Your task to perform on an android device: Search for razer blade on newegg.com, select the first entry, add it to the cart, then select checkout. Image 0: 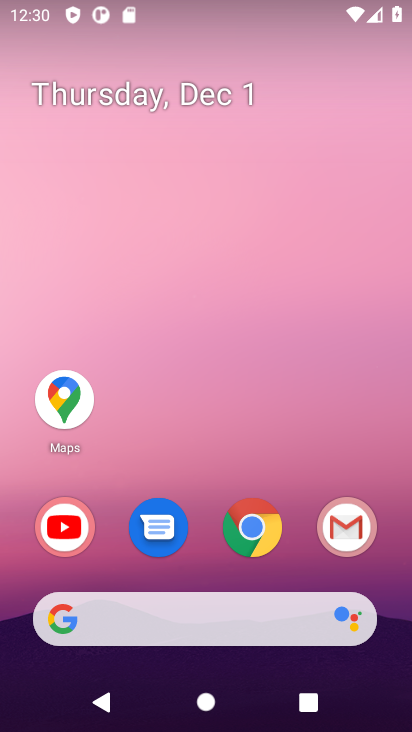
Step 0: click (263, 529)
Your task to perform on an android device: Search for razer blade on newegg.com, select the first entry, add it to the cart, then select checkout. Image 1: 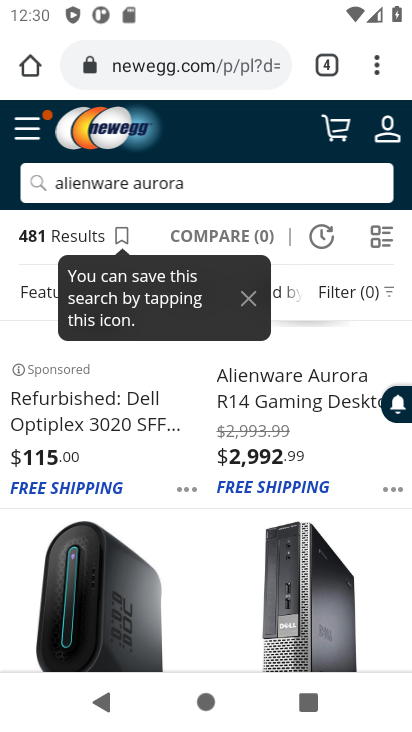
Step 1: click (213, 178)
Your task to perform on an android device: Search for razer blade on newegg.com, select the first entry, add it to the cart, then select checkout. Image 2: 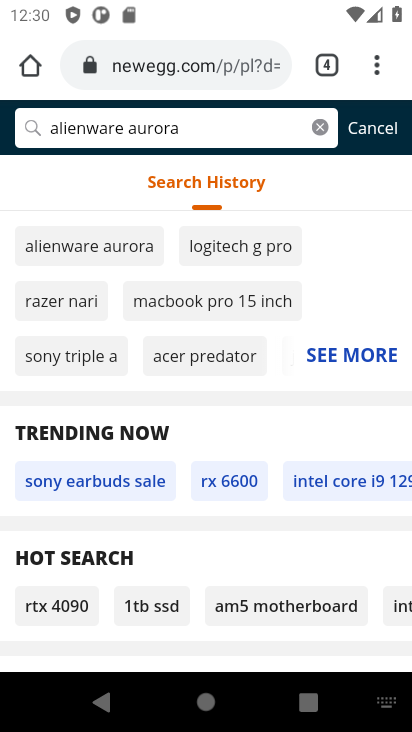
Step 2: click (372, 125)
Your task to perform on an android device: Search for razer blade on newegg.com, select the first entry, add it to the cart, then select checkout. Image 3: 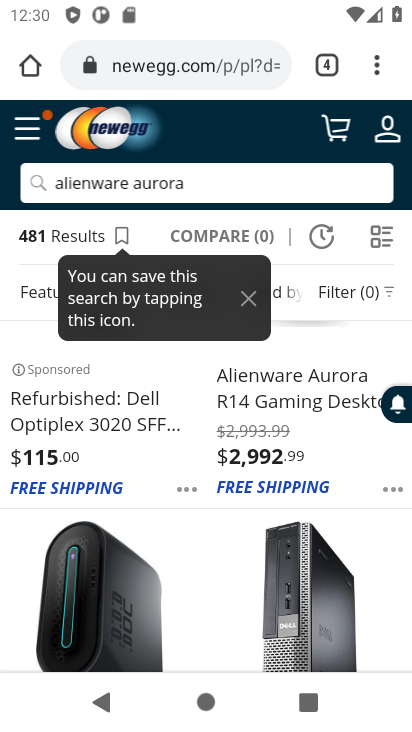
Step 3: click (198, 178)
Your task to perform on an android device: Search for razer blade on newegg.com, select the first entry, add it to the cart, then select checkout. Image 4: 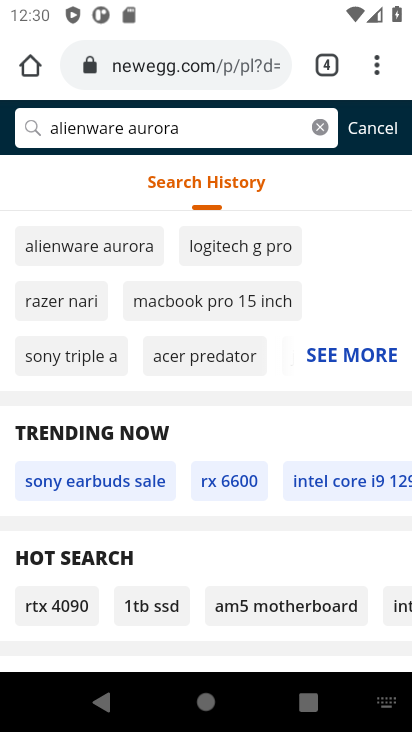
Step 4: click (318, 126)
Your task to perform on an android device: Search for razer blade on newegg.com, select the first entry, add it to the cart, then select checkout. Image 5: 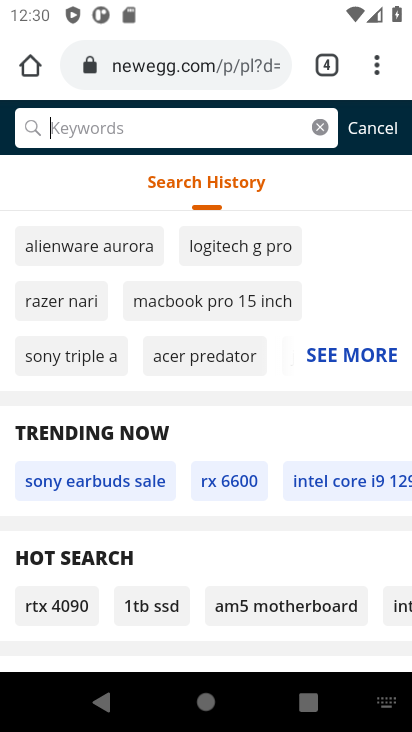
Step 5: type "razer blade "
Your task to perform on an android device: Search for razer blade on newegg.com, select the first entry, add it to the cart, then select checkout. Image 6: 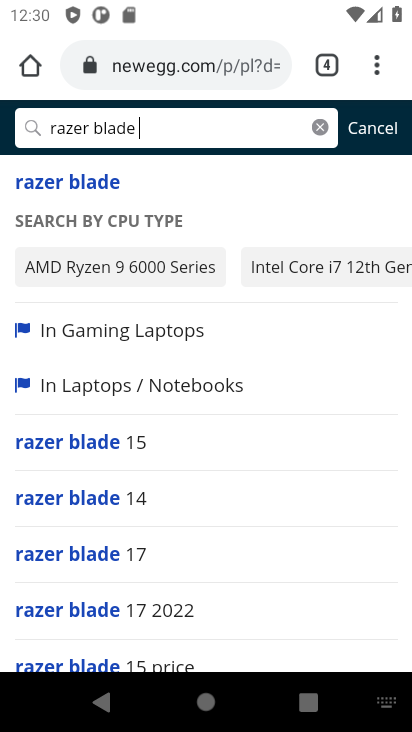
Step 6: click (105, 183)
Your task to perform on an android device: Search for razer blade on newegg.com, select the first entry, add it to the cart, then select checkout. Image 7: 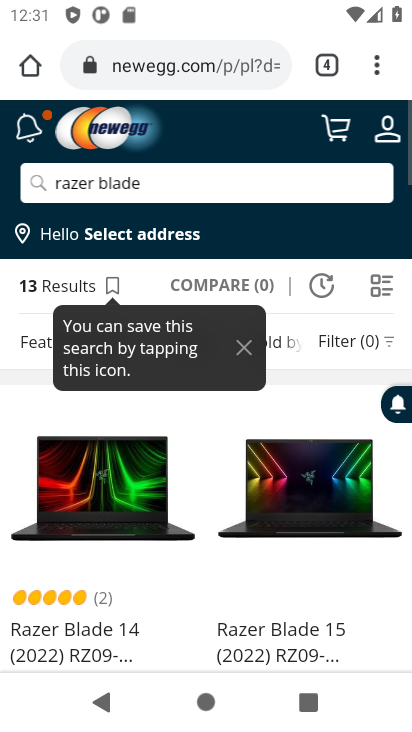
Step 7: drag from (174, 477) to (147, 228)
Your task to perform on an android device: Search for razer blade on newegg.com, select the first entry, add it to the cart, then select checkout. Image 8: 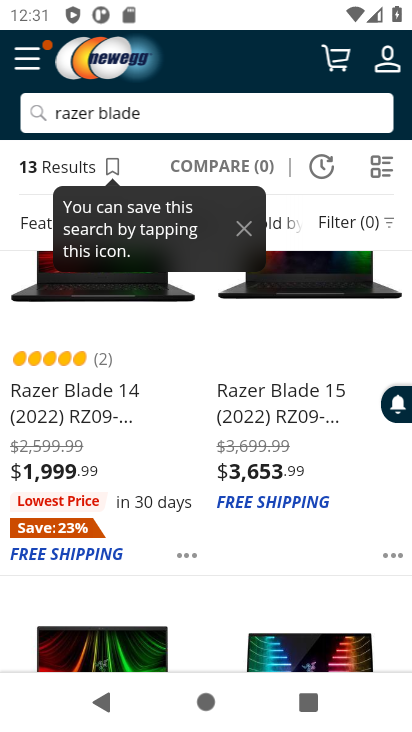
Step 8: click (60, 416)
Your task to perform on an android device: Search for razer blade on newegg.com, select the first entry, add it to the cart, then select checkout. Image 9: 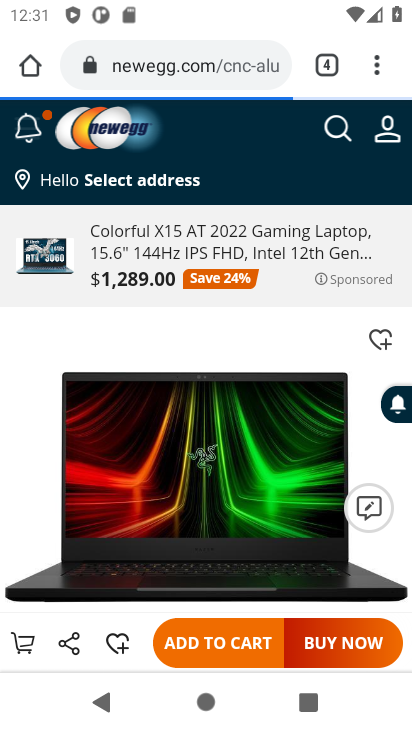
Step 9: click (41, 398)
Your task to perform on an android device: Search for razer blade on newegg.com, select the first entry, add it to the cart, then select checkout. Image 10: 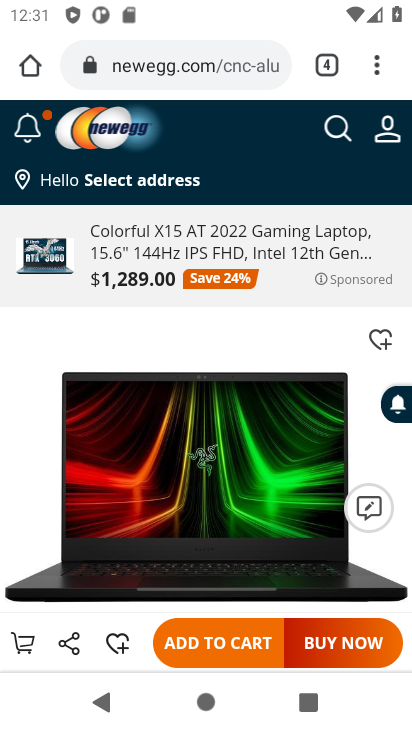
Step 10: drag from (93, 437) to (99, 224)
Your task to perform on an android device: Search for razer blade on newegg.com, select the first entry, add it to the cart, then select checkout. Image 11: 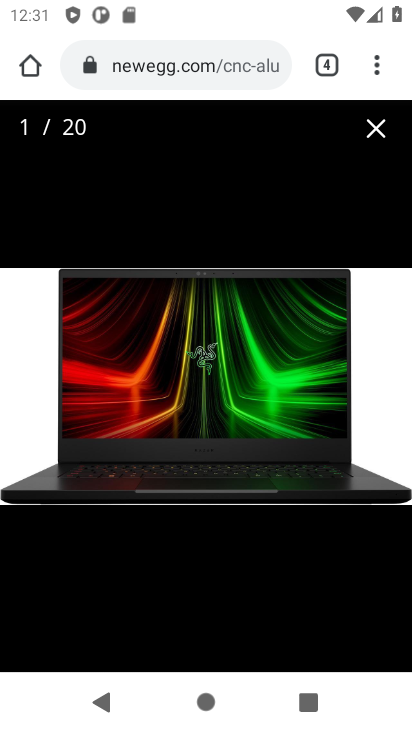
Step 11: click (375, 130)
Your task to perform on an android device: Search for razer blade on newegg.com, select the first entry, add it to the cart, then select checkout. Image 12: 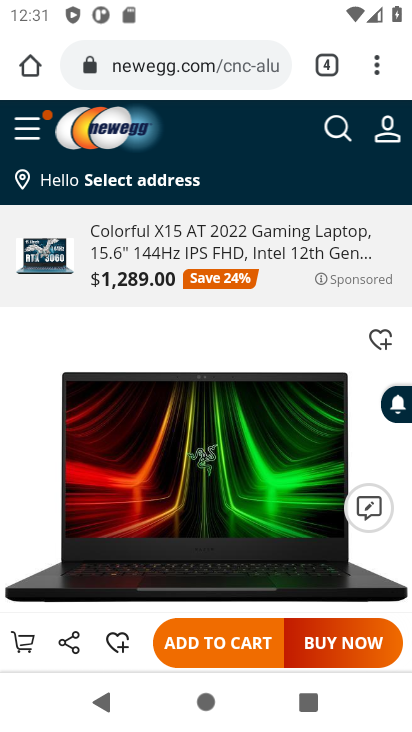
Step 12: click (202, 644)
Your task to perform on an android device: Search for razer blade on newegg.com, select the first entry, add it to the cart, then select checkout. Image 13: 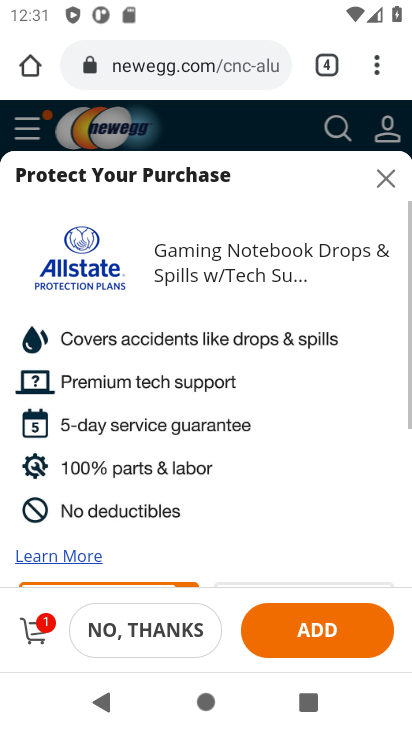
Step 13: click (44, 624)
Your task to perform on an android device: Search for razer blade on newegg.com, select the first entry, add it to the cart, then select checkout. Image 14: 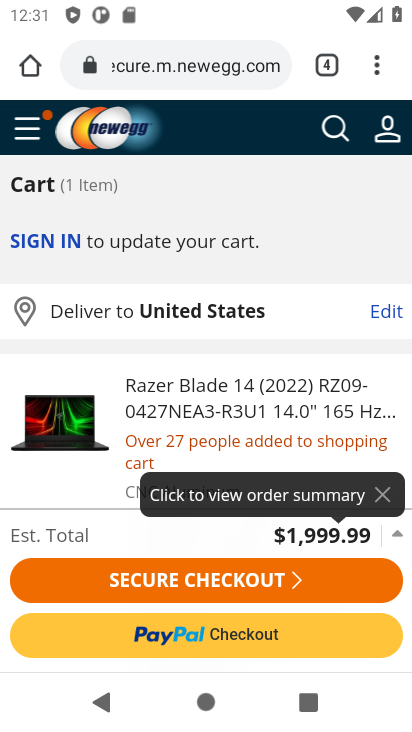
Step 14: click (181, 585)
Your task to perform on an android device: Search for razer blade on newegg.com, select the first entry, add it to the cart, then select checkout. Image 15: 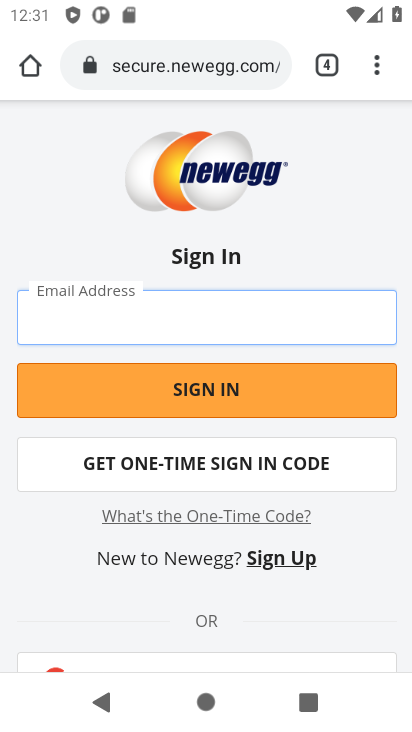
Step 15: task complete